Your task to perform on an android device: Search for seafood restaurants on Google Maps Image 0: 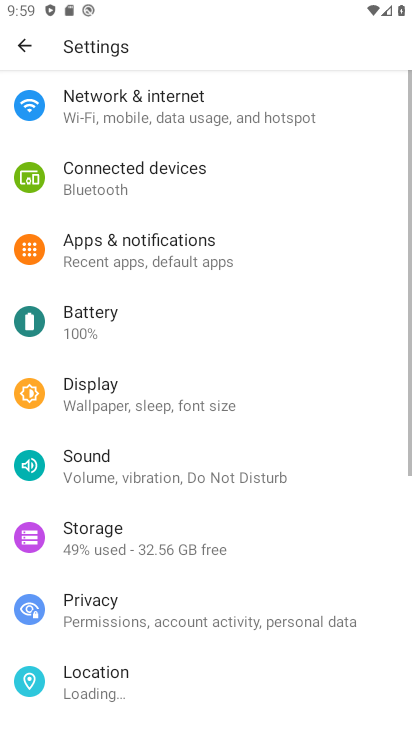
Step 0: press home button
Your task to perform on an android device: Search for seafood restaurants on Google Maps Image 1: 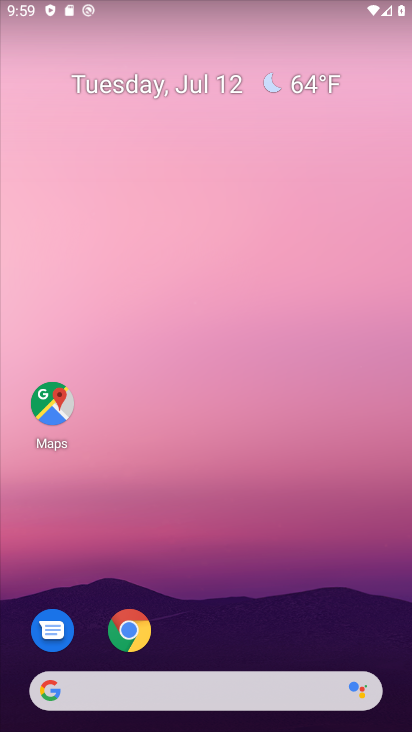
Step 1: drag from (212, 650) to (196, 52)
Your task to perform on an android device: Search for seafood restaurants on Google Maps Image 2: 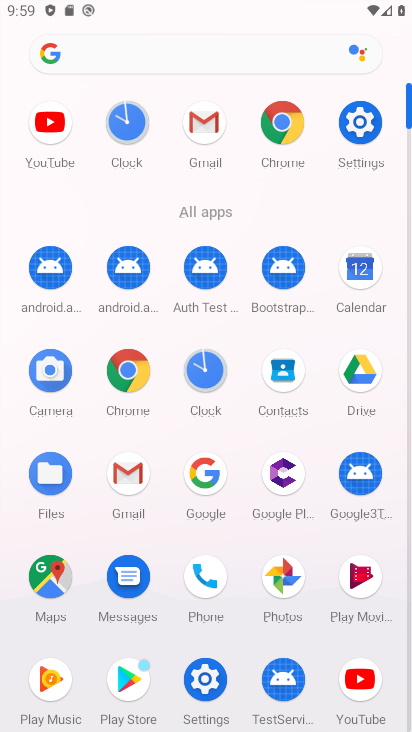
Step 2: click (47, 564)
Your task to perform on an android device: Search for seafood restaurants on Google Maps Image 3: 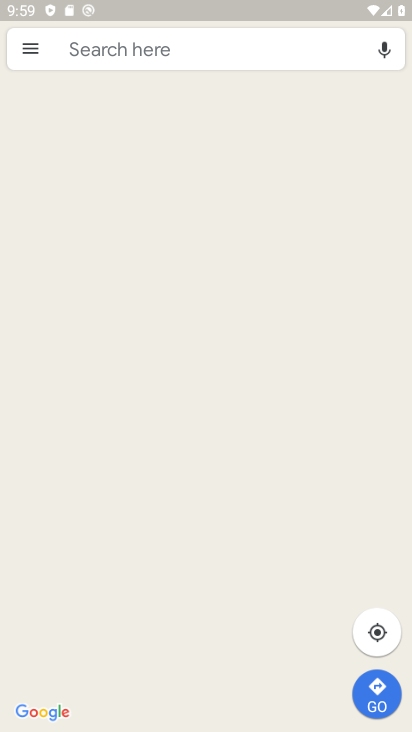
Step 3: click (258, 43)
Your task to perform on an android device: Search for seafood restaurants on Google Maps Image 4: 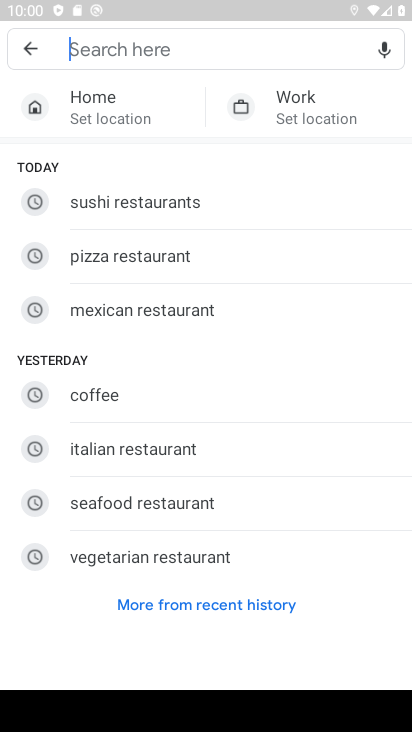
Step 4: type "seafood restaurants"
Your task to perform on an android device: Search for seafood restaurants on Google Maps Image 5: 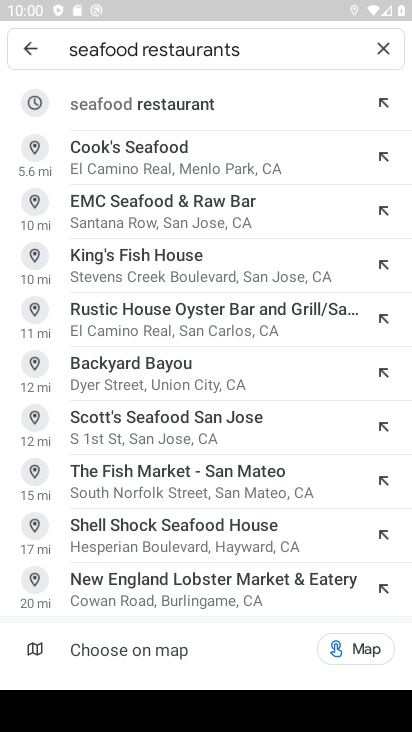
Step 5: click (206, 105)
Your task to perform on an android device: Search for seafood restaurants on Google Maps Image 6: 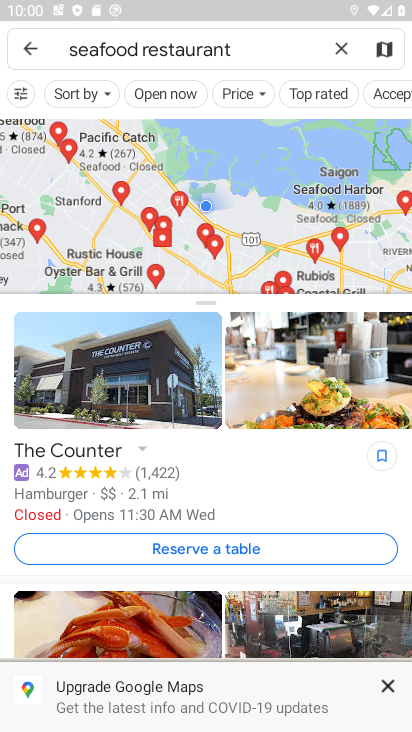
Step 6: task complete